Your task to perform on an android device: turn on javascript in the chrome app Image 0: 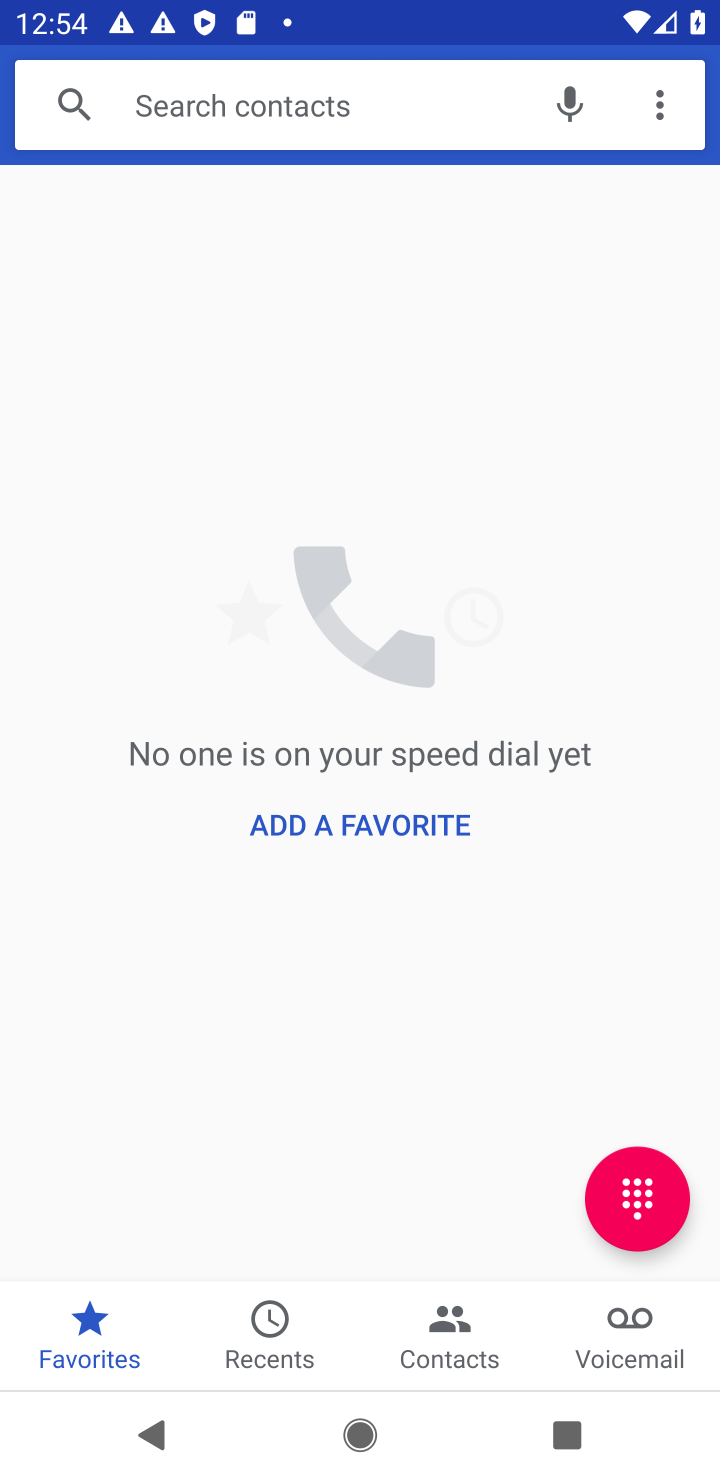
Step 0: press home button
Your task to perform on an android device: turn on javascript in the chrome app Image 1: 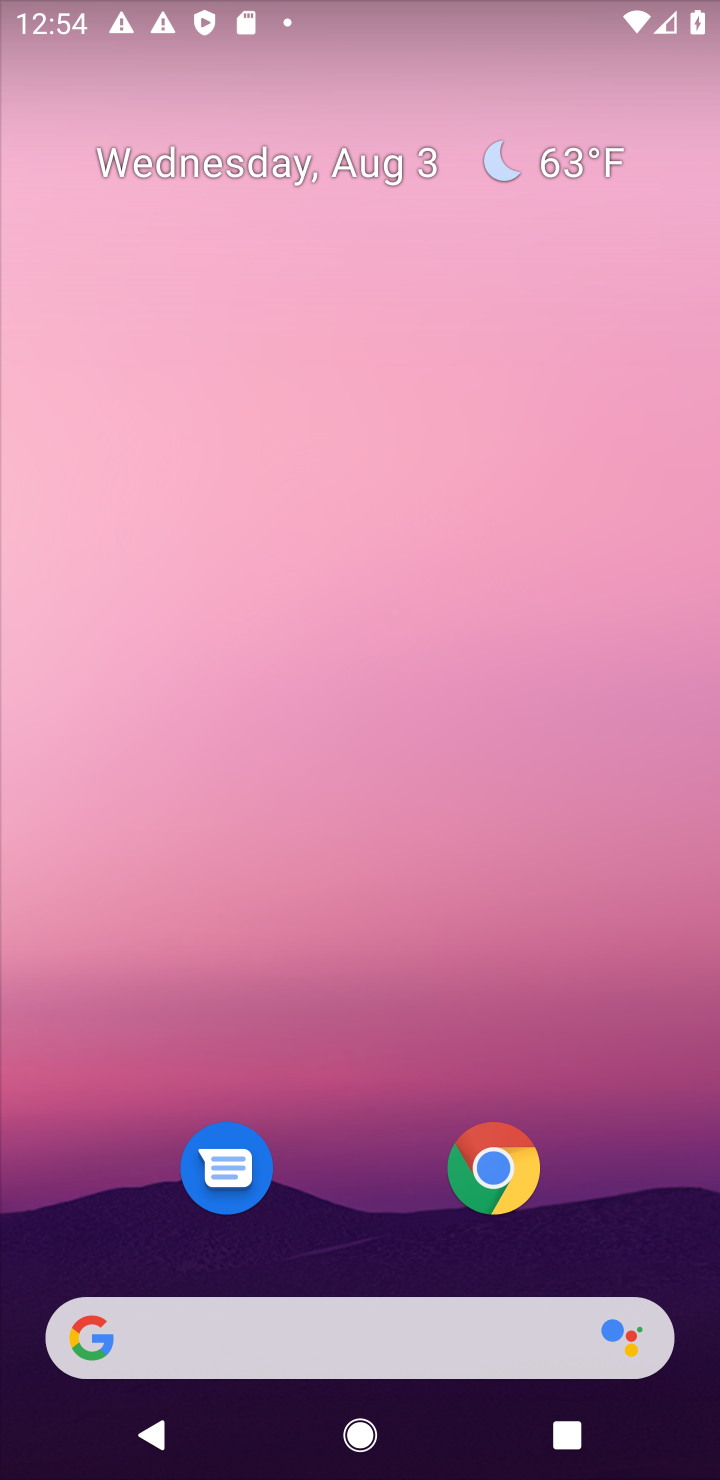
Step 1: click (507, 1182)
Your task to perform on an android device: turn on javascript in the chrome app Image 2: 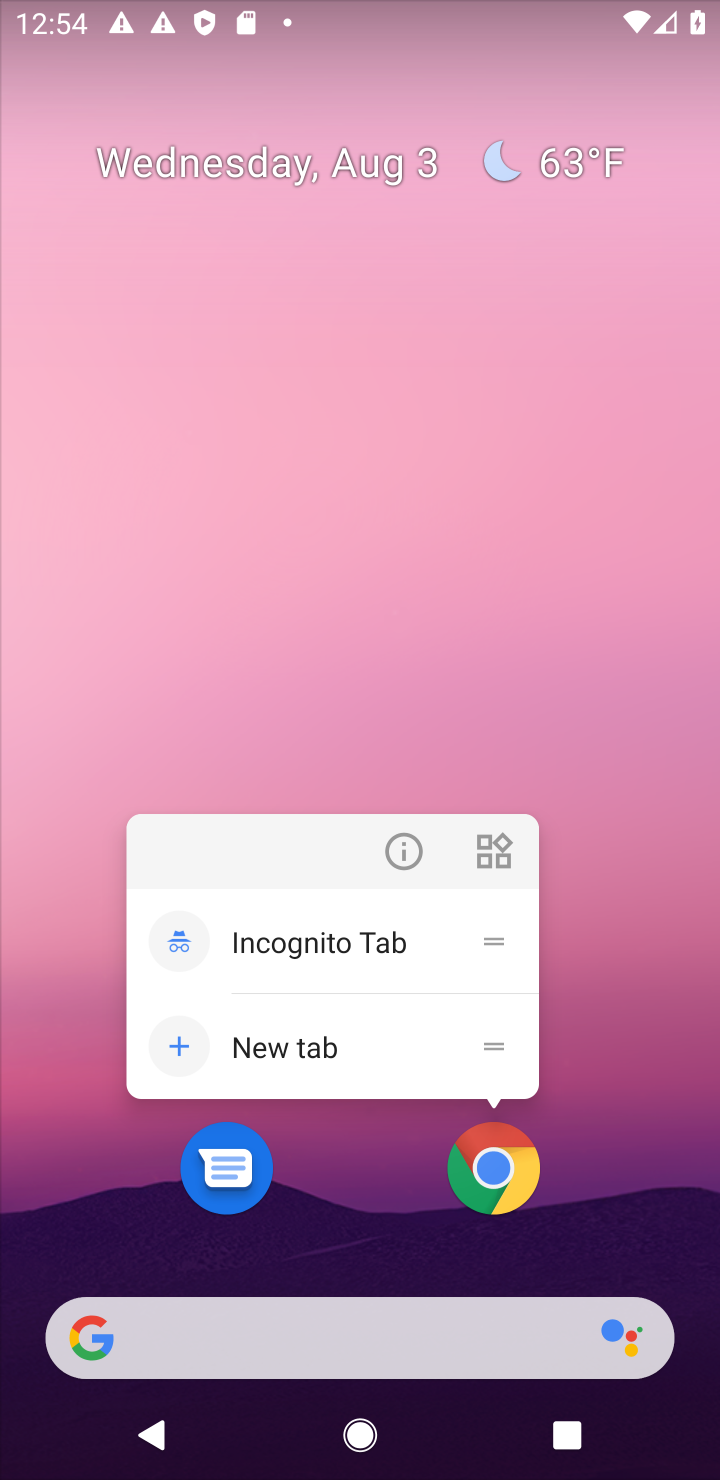
Step 2: click (493, 1169)
Your task to perform on an android device: turn on javascript in the chrome app Image 3: 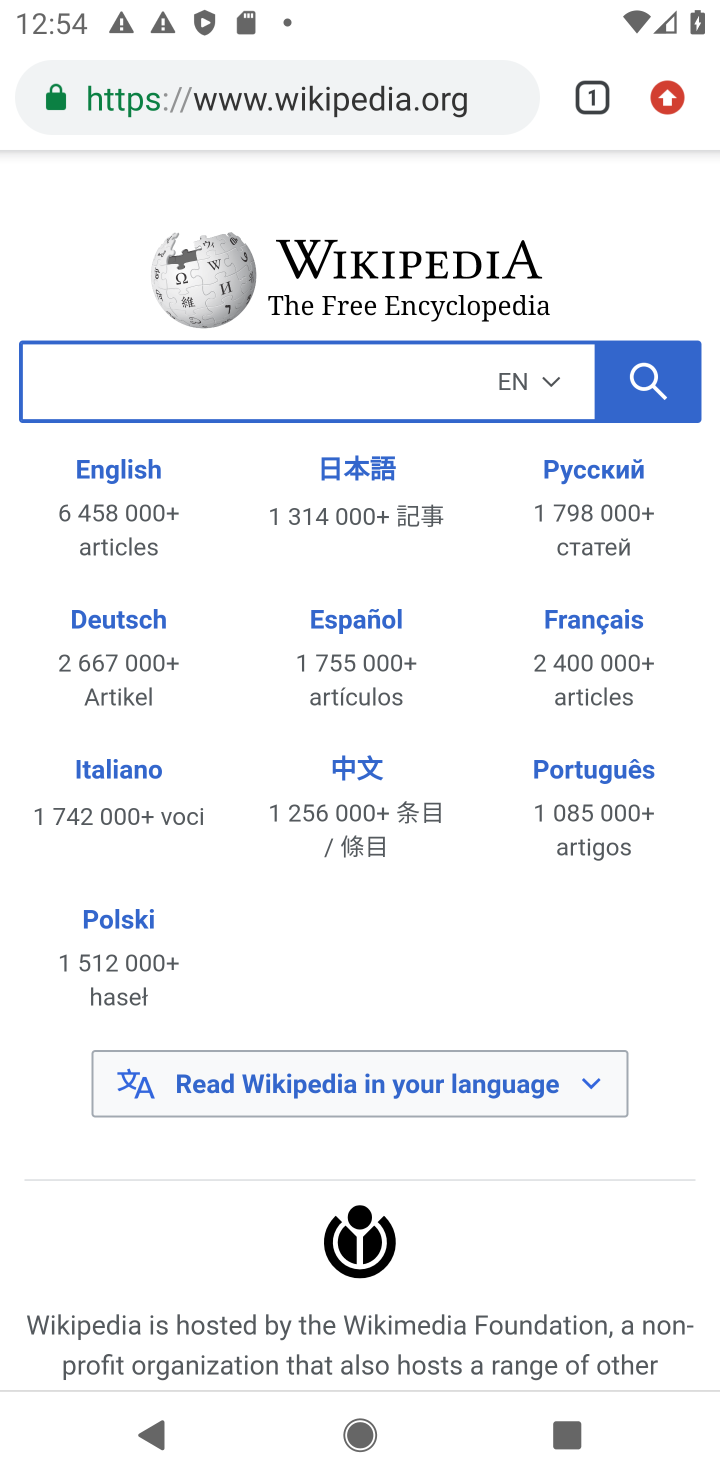
Step 3: click (665, 97)
Your task to perform on an android device: turn on javascript in the chrome app Image 4: 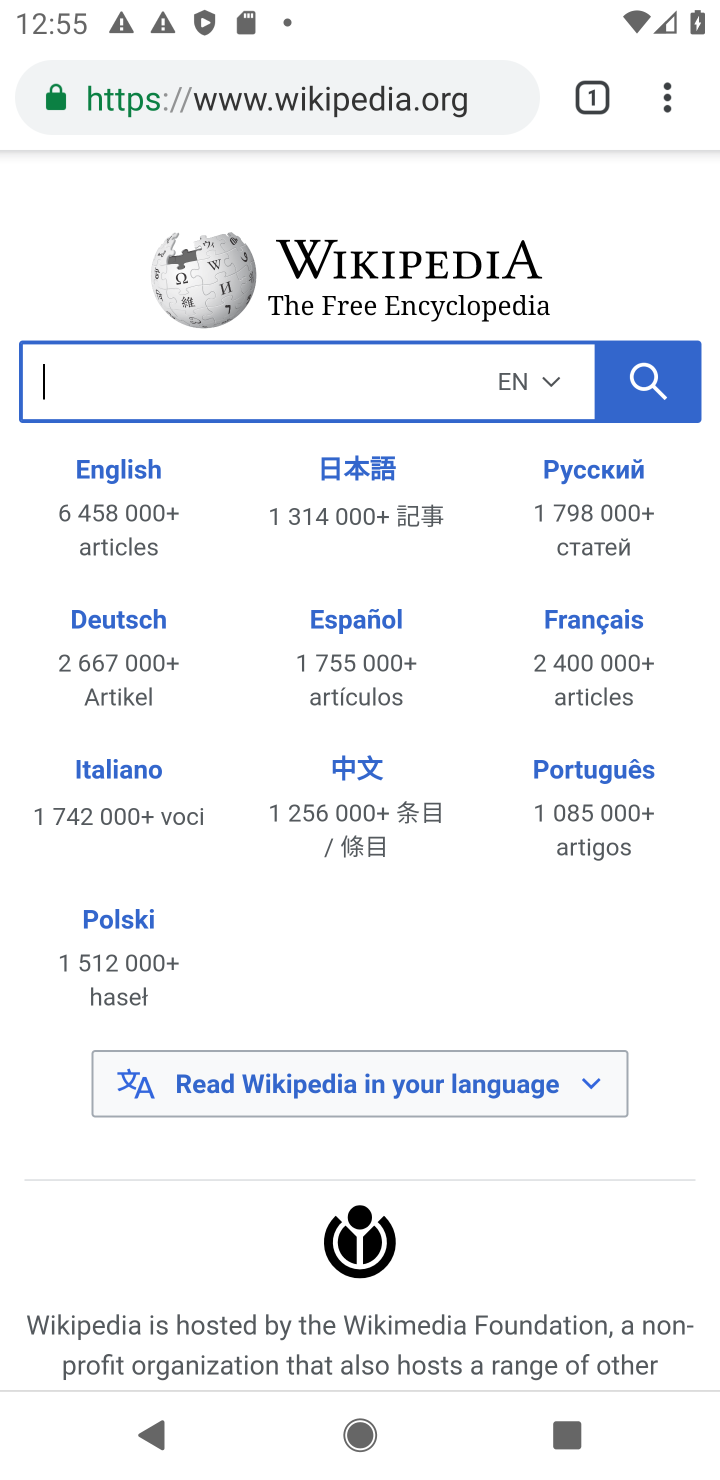
Step 4: click (667, 113)
Your task to perform on an android device: turn on javascript in the chrome app Image 5: 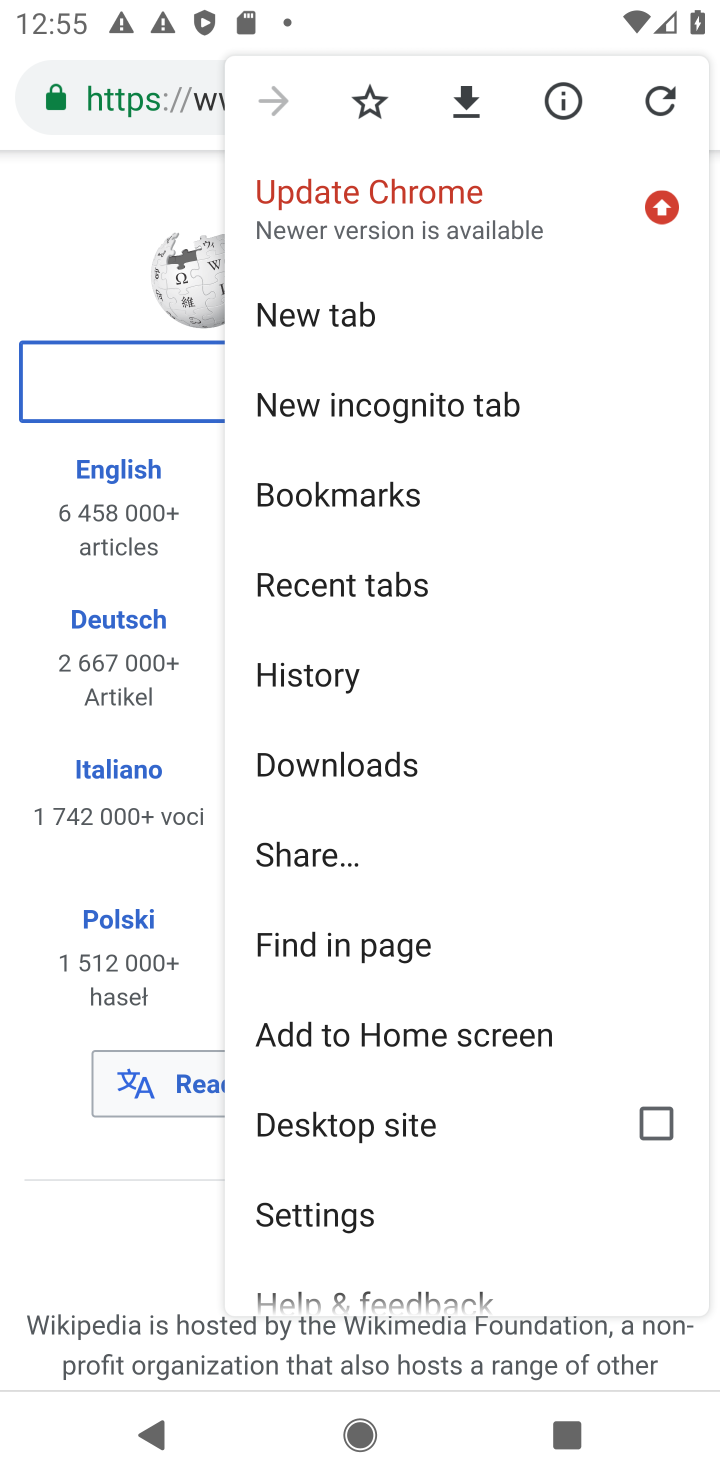
Step 5: click (340, 1218)
Your task to perform on an android device: turn on javascript in the chrome app Image 6: 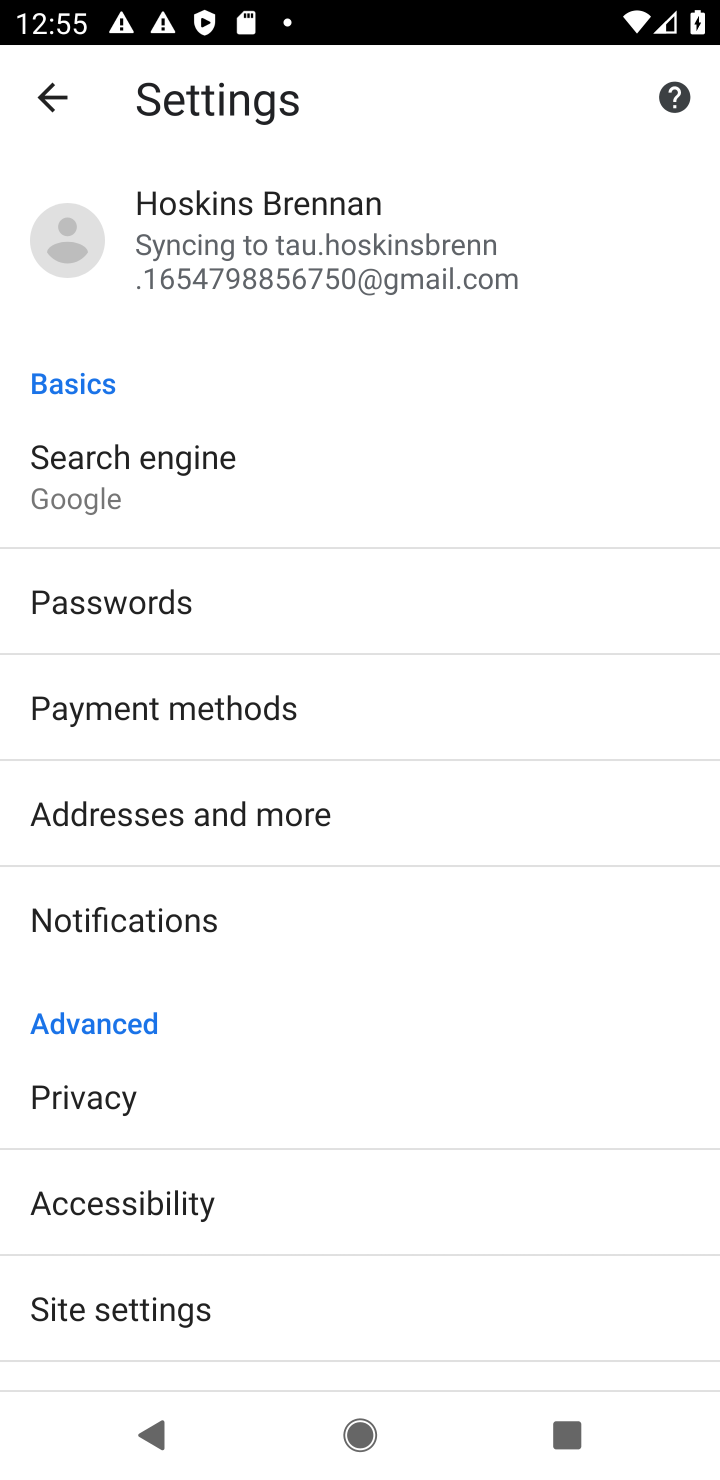
Step 6: drag from (490, 1231) to (484, 370)
Your task to perform on an android device: turn on javascript in the chrome app Image 7: 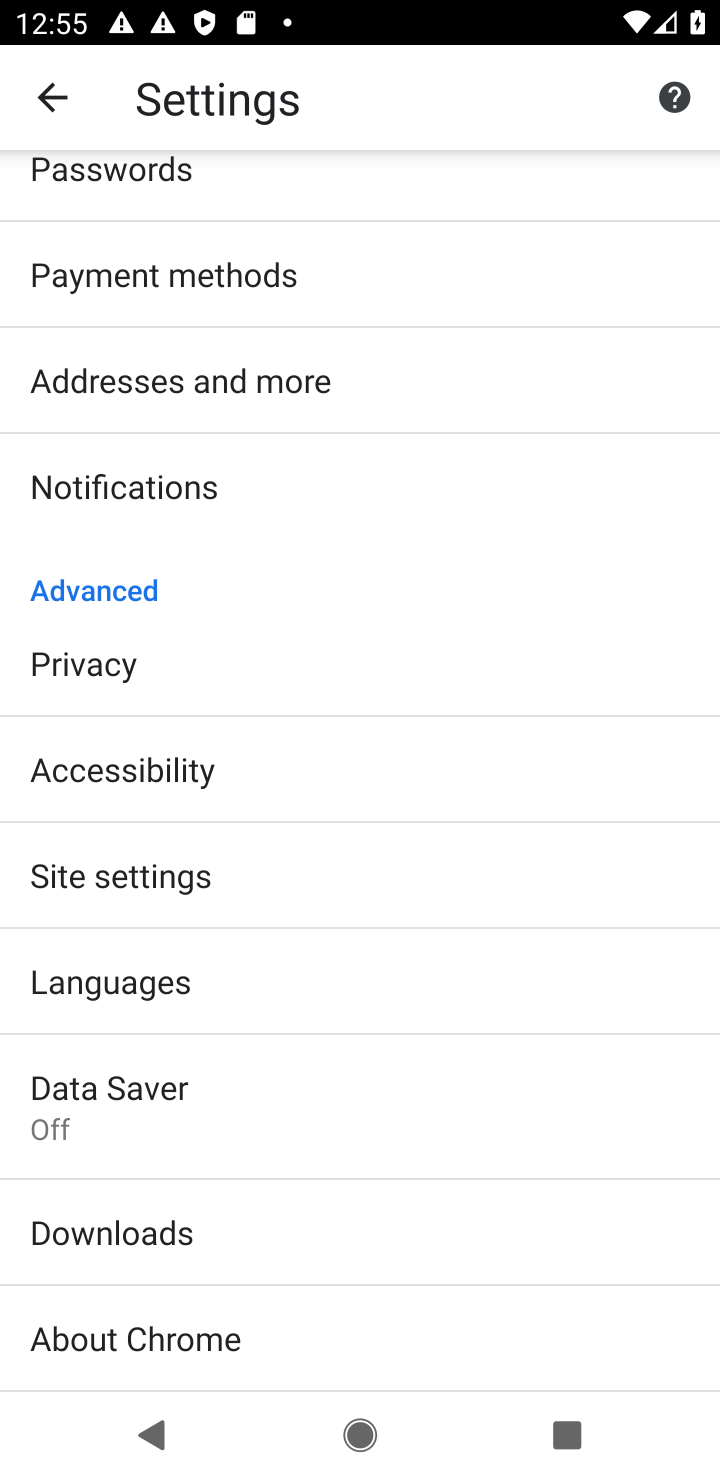
Step 7: click (93, 875)
Your task to perform on an android device: turn on javascript in the chrome app Image 8: 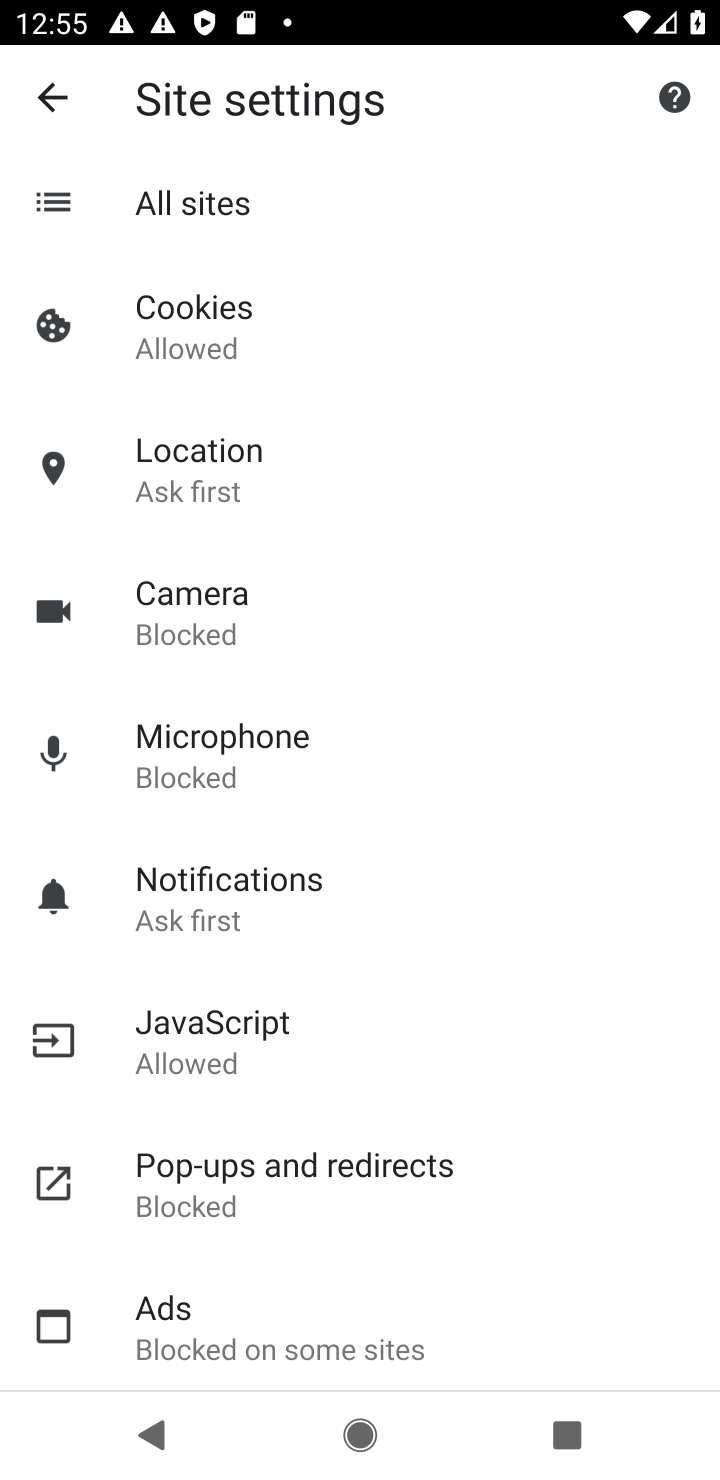
Step 8: click (198, 1028)
Your task to perform on an android device: turn on javascript in the chrome app Image 9: 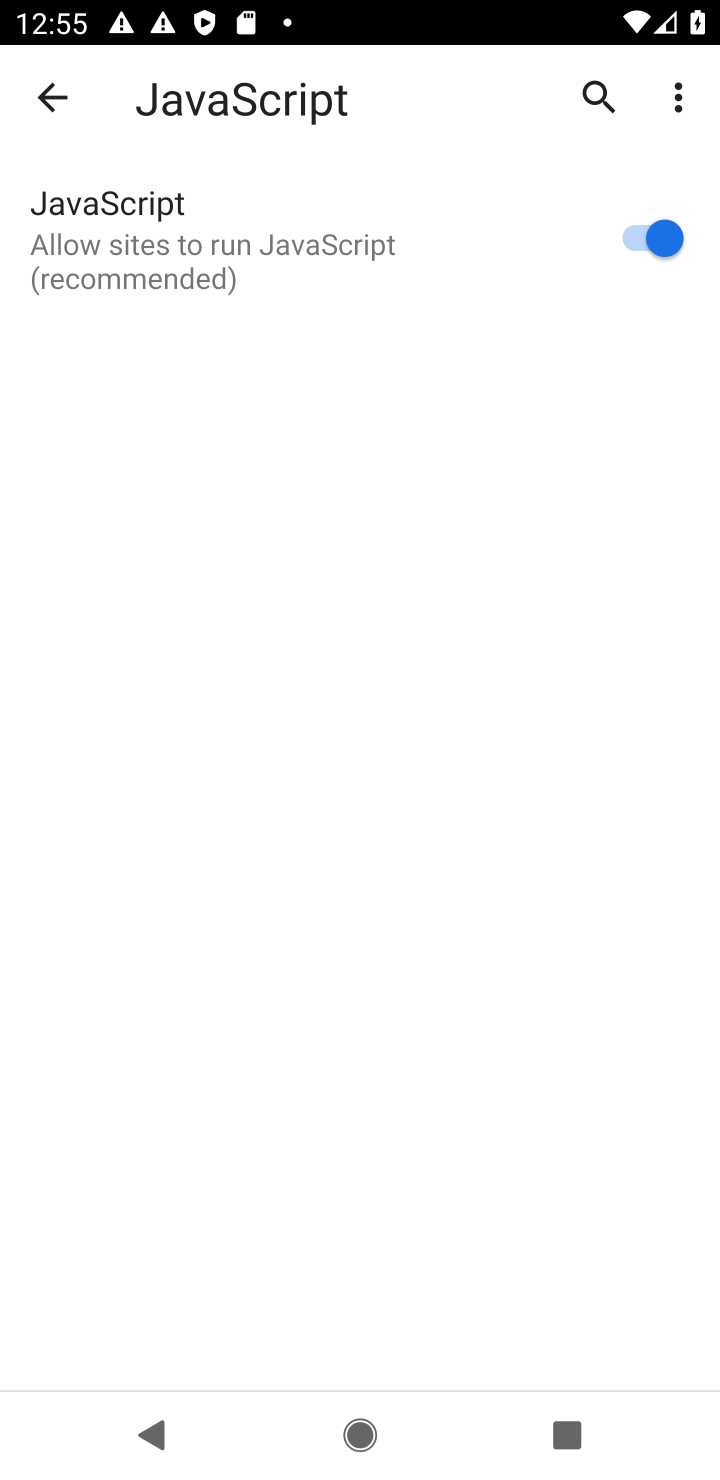
Step 9: task complete